Your task to perform on an android device: open chrome and create a bookmark for the current page Image 0: 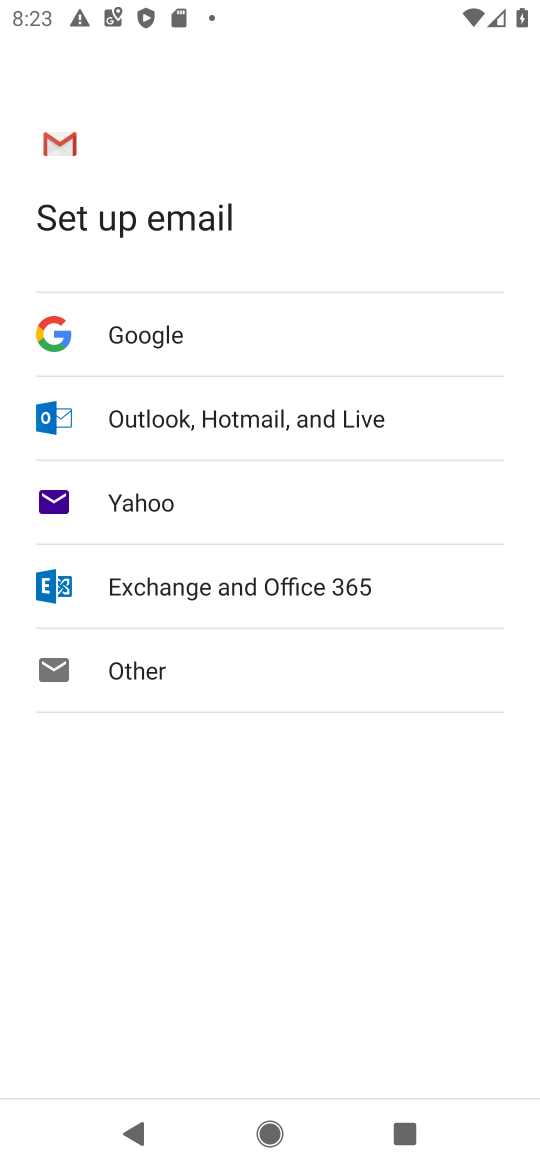
Step 0: press home button
Your task to perform on an android device: open chrome and create a bookmark for the current page Image 1: 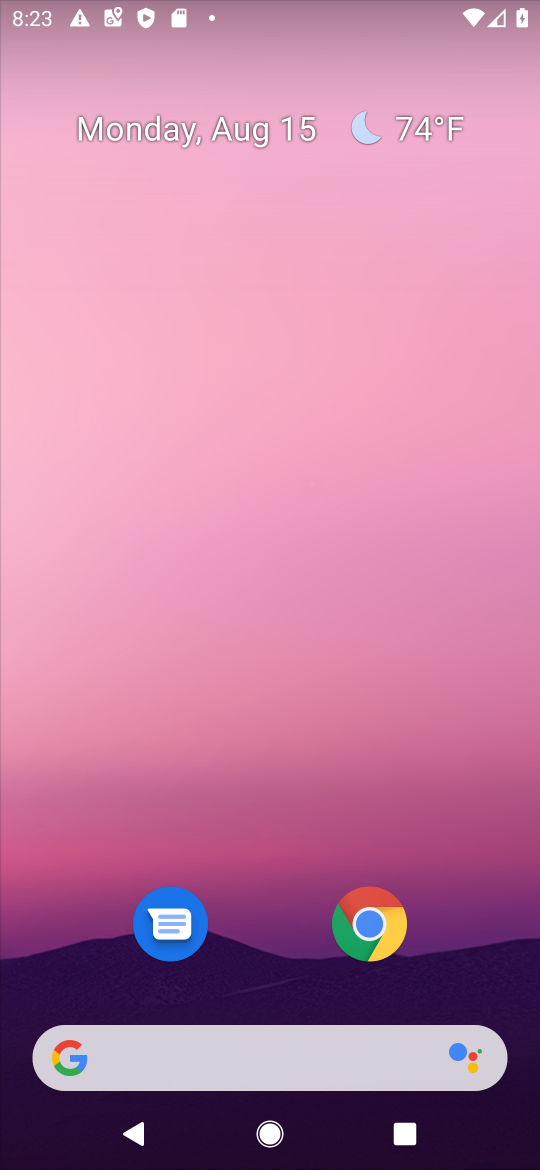
Step 1: click (373, 929)
Your task to perform on an android device: open chrome and create a bookmark for the current page Image 2: 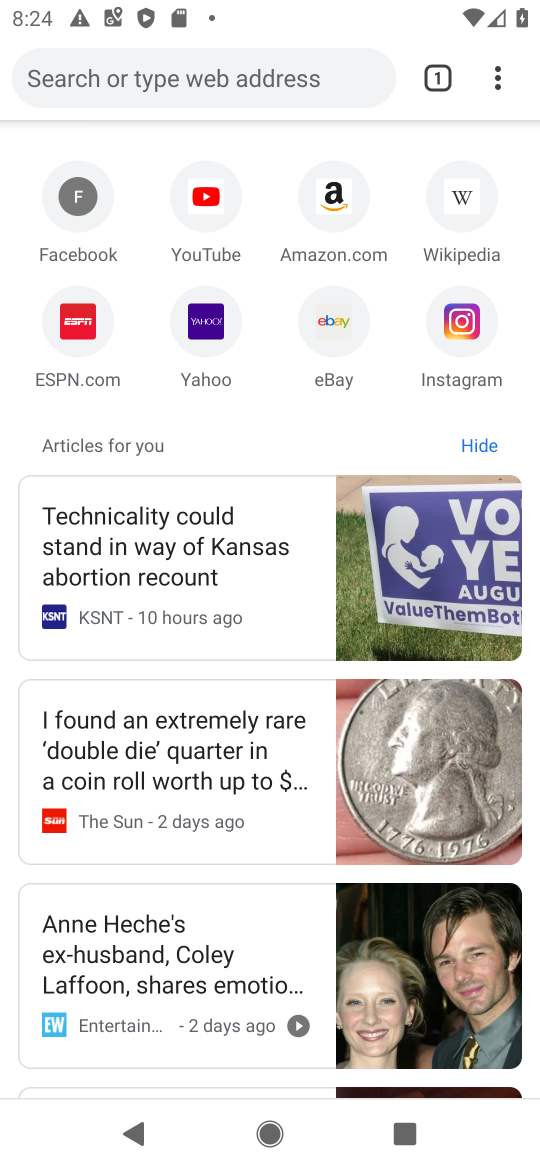
Step 2: click (490, 94)
Your task to perform on an android device: open chrome and create a bookmark for the current page Image 3: 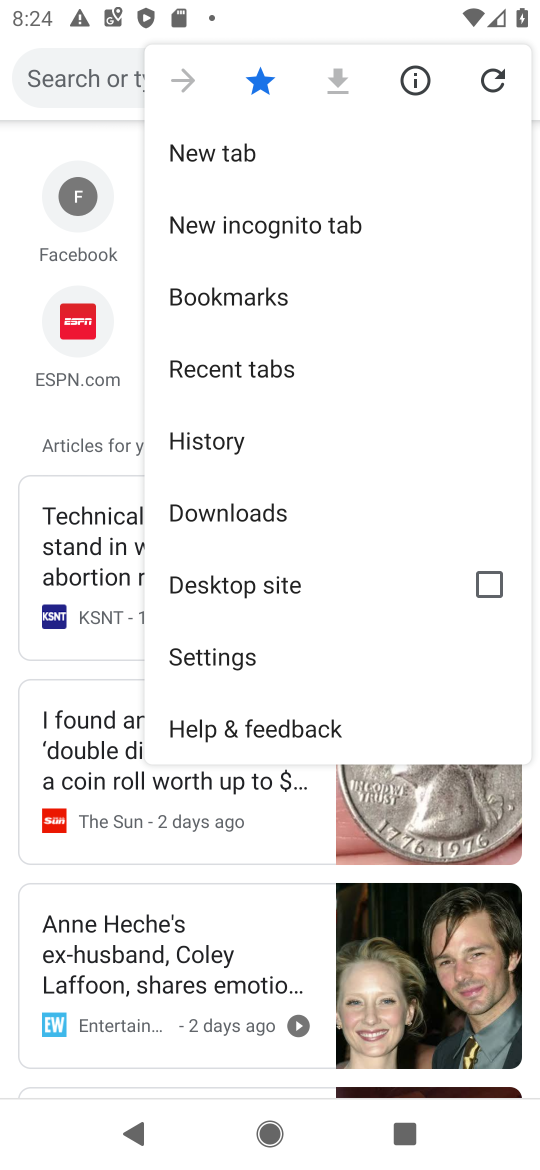
Step 3: task complete